Your task to perform on an android device: move a message to another label in the gmail app Image 0: 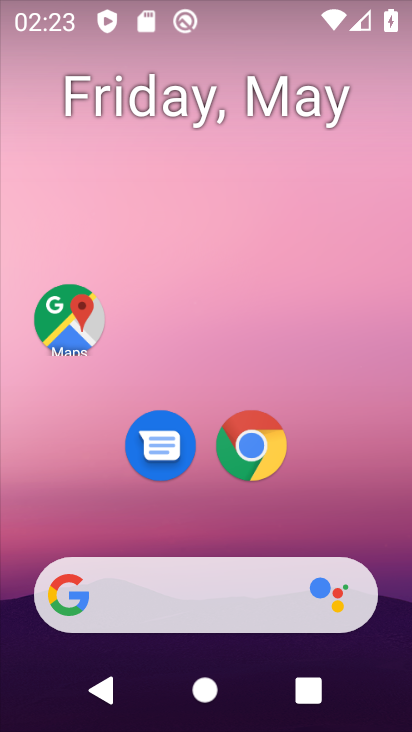
Step 0: drag from (95, 542) to (214, 46)
Your task to perform on an android device: move a message to another label in the gmail app Image 1: 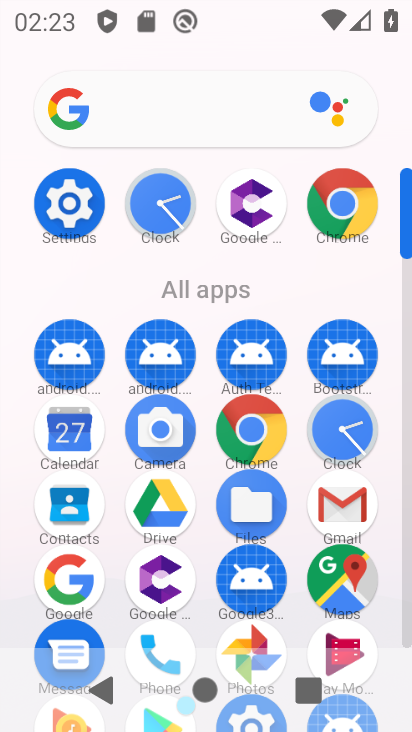
Step 1: click (332, 511)
Your task to perform on an android device: move a message to another label in the gmail app Image 2: 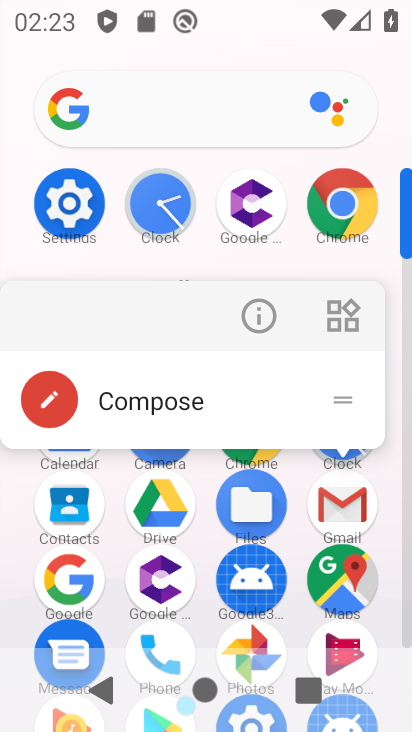
Step 2: click (336, 507)
Your task to perform on an android device: move a message to another label in the gmail app Image 3: 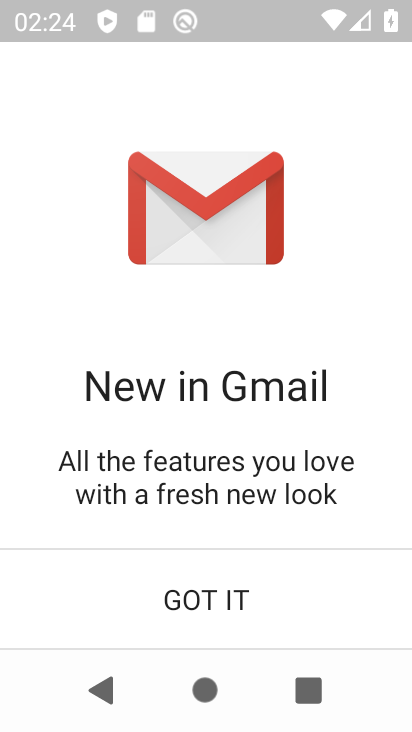
Step 3: click (255, 590)
Your task to perform on an android device: move a message to another label in the gmail app Image 4: 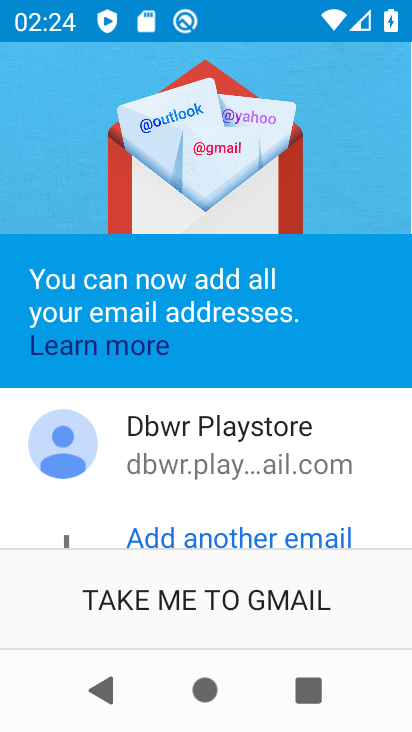
Step 4: click (326, 589)
Your task to perform on an android device: move a message to another label in the gmail app Image 5: 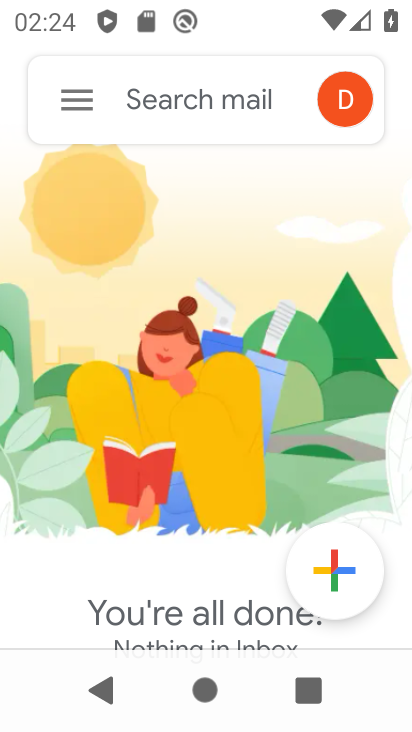
Step 5: click (97, 122)
Your task to perform on an android device: move a message to another label in the gmail app Image 6: 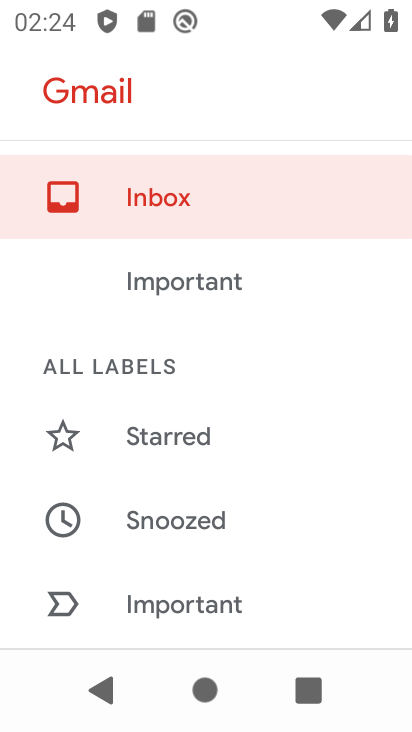
Step 6: drag from (162, 533) to (329, 135)
Your task to perform on an android device: move a message to another label in the gmail app Image 7: 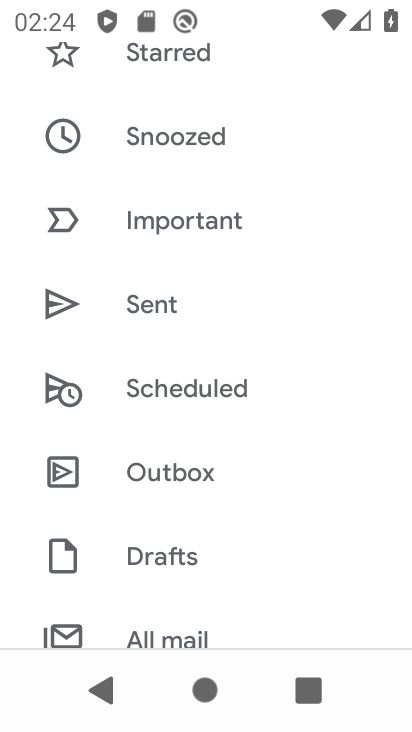
Step 7: drag from (246, 539) to (295, 324)
Your task to perform on an android device: move a message to another label in the gmail app Image 8: 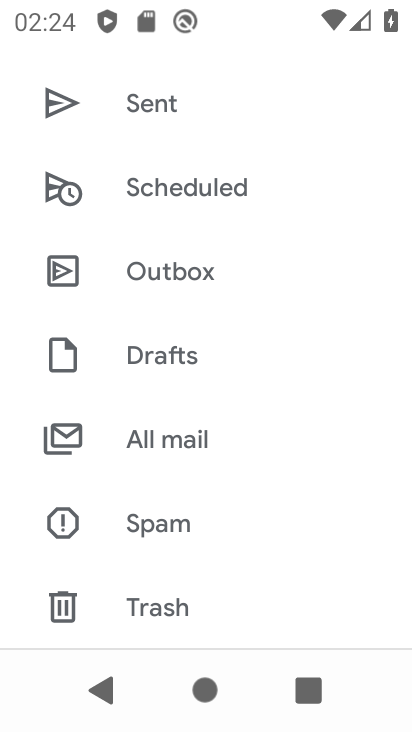
Step 8: click (196, 439)
Your task to perform on an android device: move a message to another label in the gmail app Image 9: 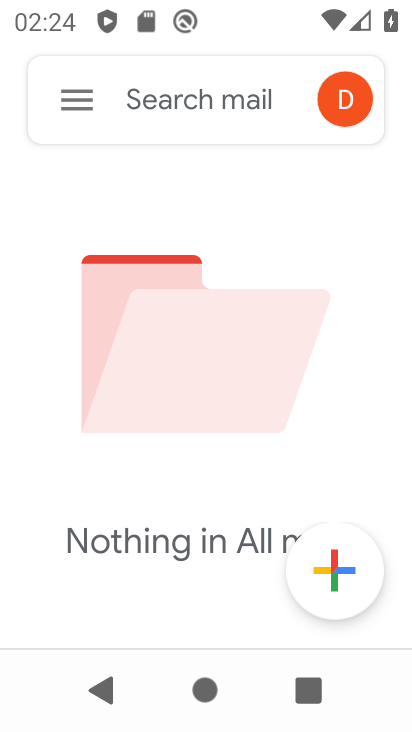
Step 9: task complete